Your task to perform on an android device: Play the last video I watched on Youtube Image 0: 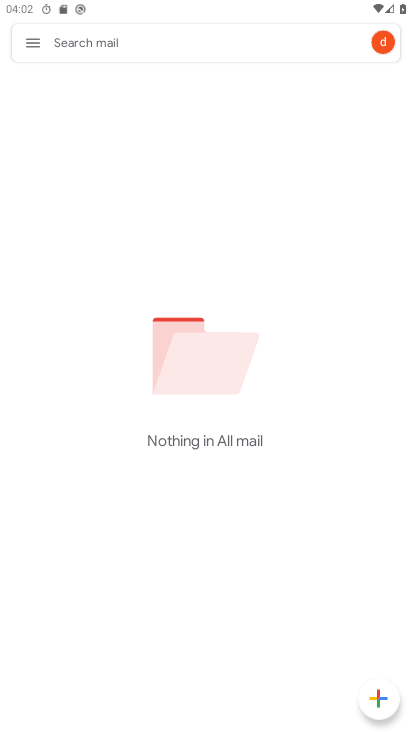
Step 0: press home button
Your task to perform on an android device: Play the last video I watched on Youtube Image 1: 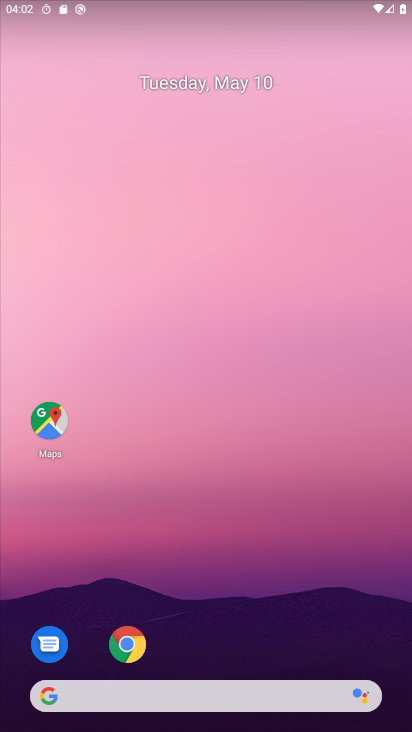
Step 1: drag from (217, 664) to (248, 111)
Your task to perform on an android device: Play the last video I watched on Youtube Image 2: 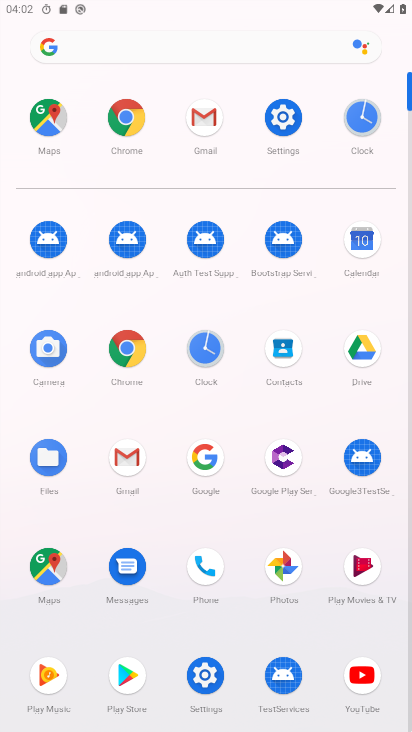
Step 2: click (356, 670)
Your task to perform on an android device: Play the last video I watched on Youtube Image 3: 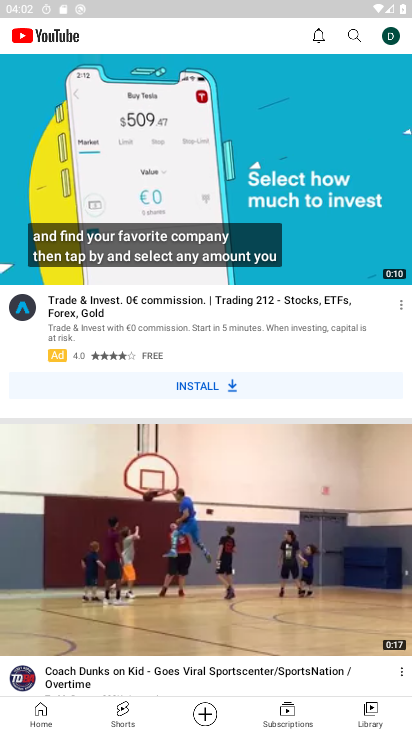
Step 3: click (362, 708)
Your task to perform on an android device: Play the last video I watched on Youtube Image 4: 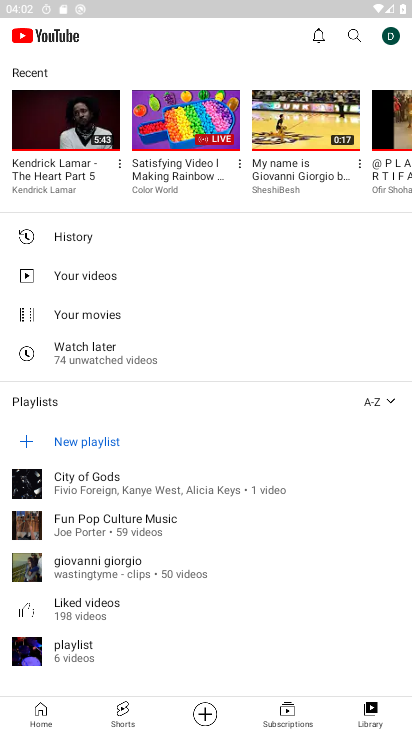
Step 4: click (60, 124)
Your task to perform on an android device: Play the last video I watched on Youtube Image 5: 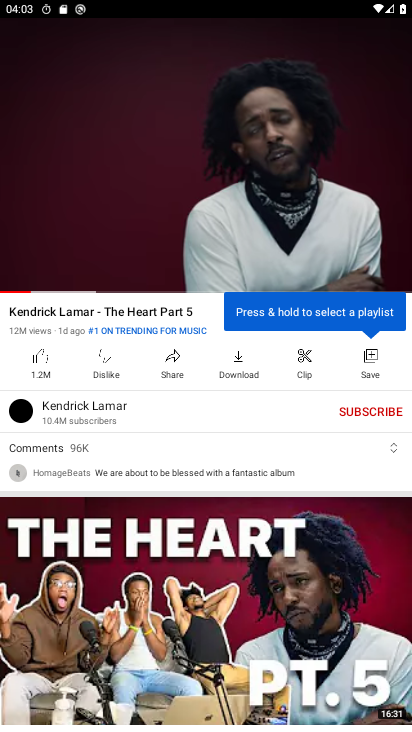
Step 5: task complete